Your task to perform on an android device: check out phone information Image 0: 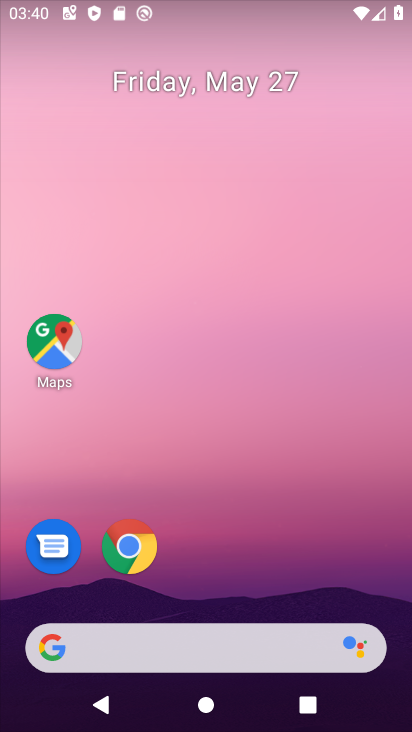
Step 0: click (387, 242)
Your task to perform on an android device: check out phone information Image 1: 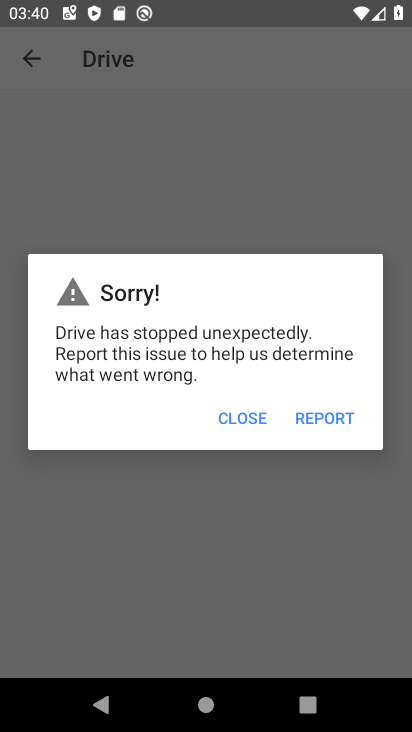
Step 1: press home button
Your task to perform on an android device: check out phone information Image 2: 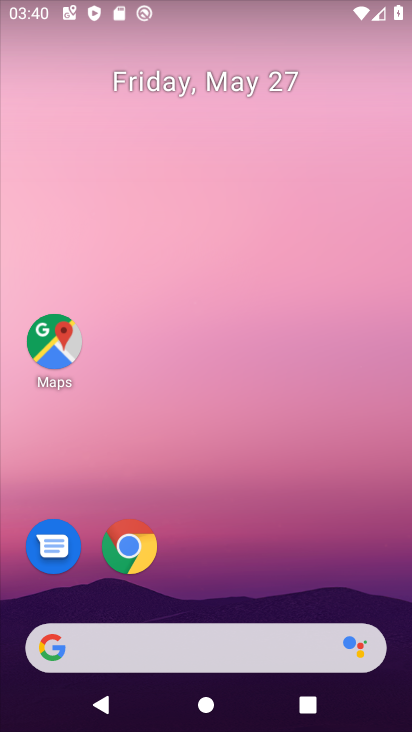
Step 2: drag from (395, 708) to (343, 97)
Your task to perform on an android device: check out phone information Image 3: 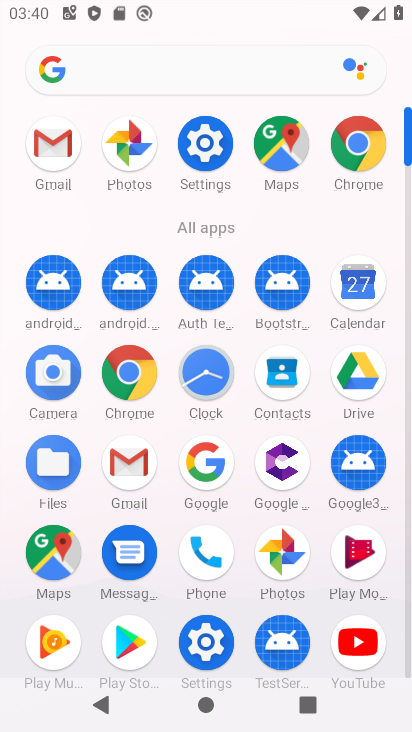
Step 3: click (184, 140)
Your task to perform on an android device: check out phone information Image 4: 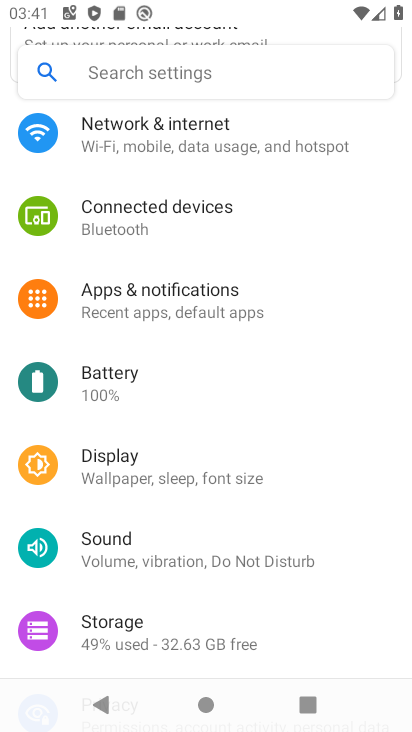
Step 4: drag from (321, 637) to (326, 297)
Your task to perform on an android device: check out phone information Image 5: 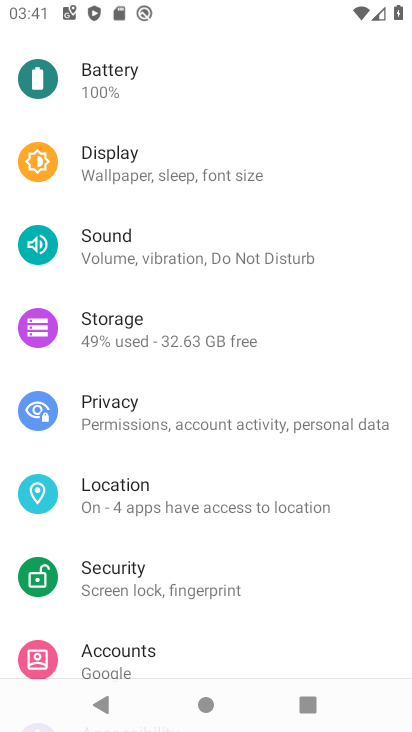
Step 5: drag from (252, 670) to (299, 257)
Your task to perform on an android device: check out phone information Image 6: 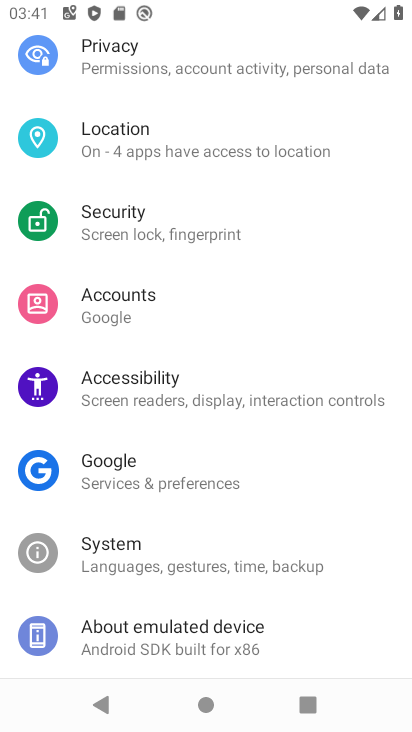
Step 6: click (167, 631)
Your task to perform on an android device: check out phone information Image 7: 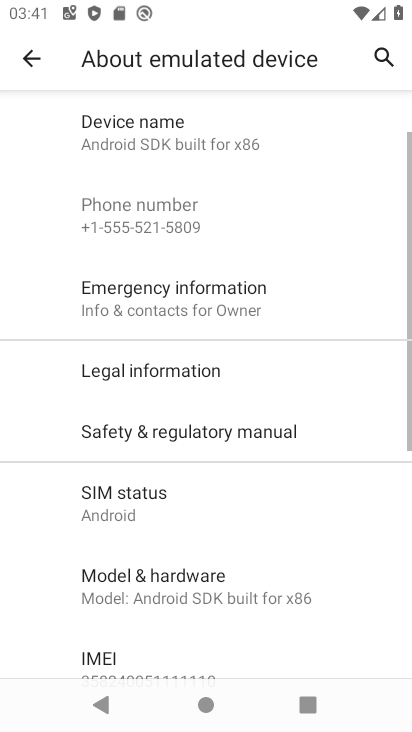
Step 7: click (183, 304)
Your task to perform on an android device: check out phone information Image 8: 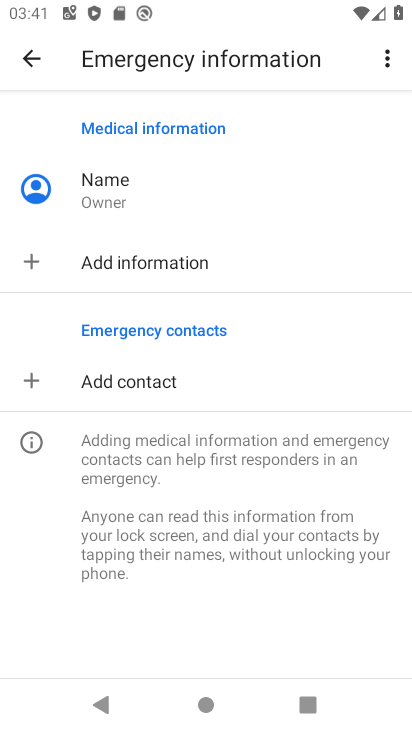
Step 8: task complete